Your task to perform on an android device: visit the assistant section in the google photos Image 0: 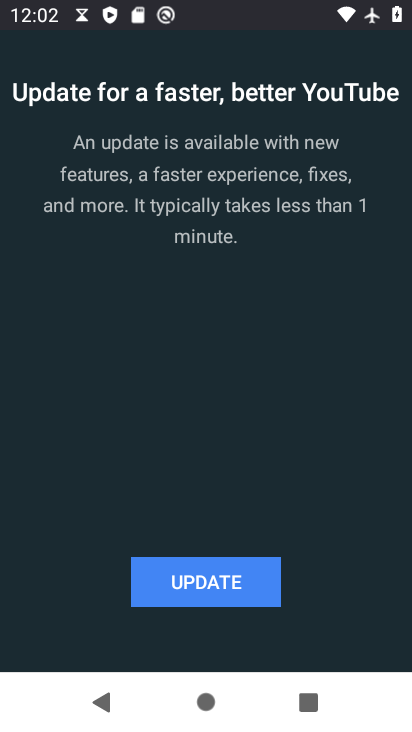
Step 0: press home button
Your task to perform on an android device: visit the assistant section in the google photos Image 1: 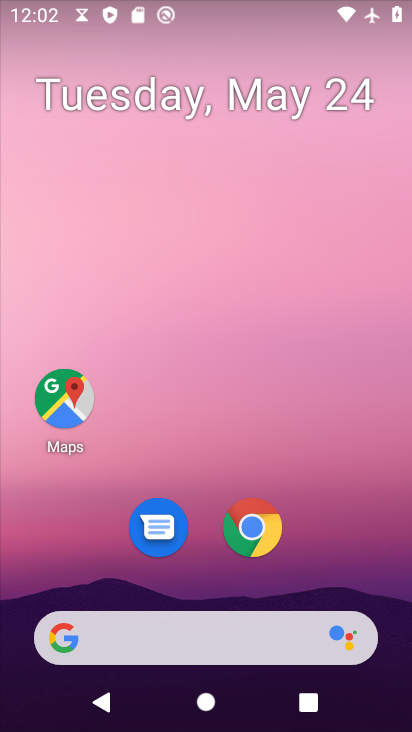
Step 1: drag from (207, 617) to (362, 75)
Your task to perform on an android device: visit the assistant section in the google photos Image 2: 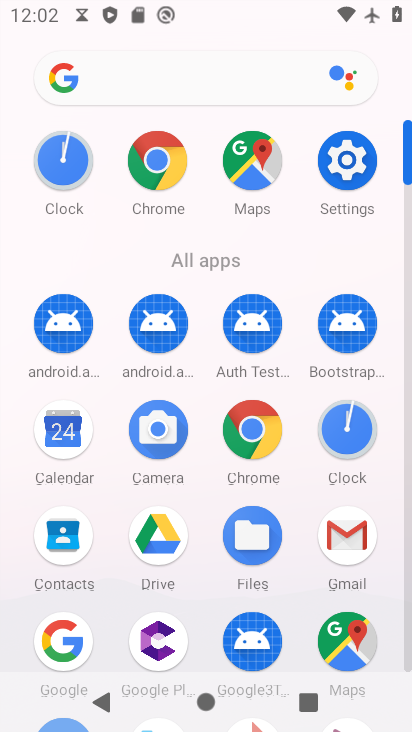
Step 2: drag from (209, 610) to (334, 197)
Your task to perform on an android device: visit the assistant section in the google photos Image 3: 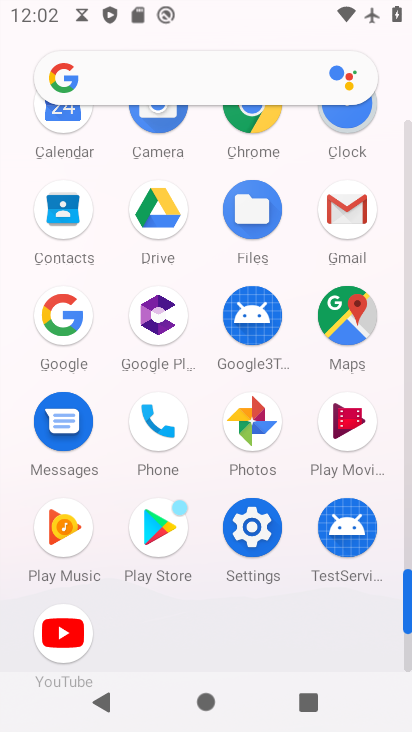
Step 3: click (260, 421)
Your task to perform on an android device: visit the assistant section in the google photos Image 4: 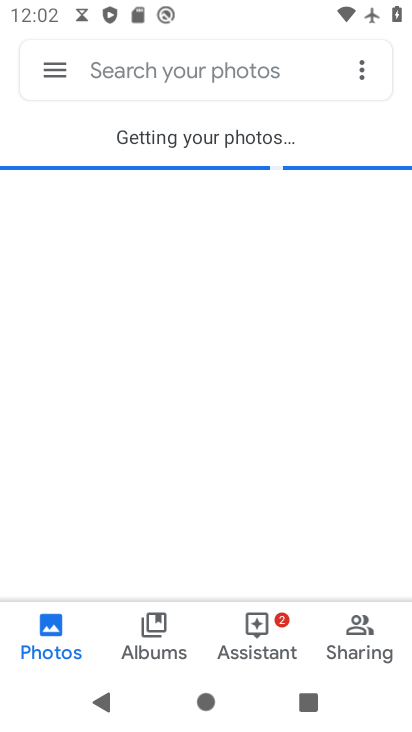
Step 4: click (252, 634)
Your task to perform on an android device: visit the assistant section in the google photos Image 5: 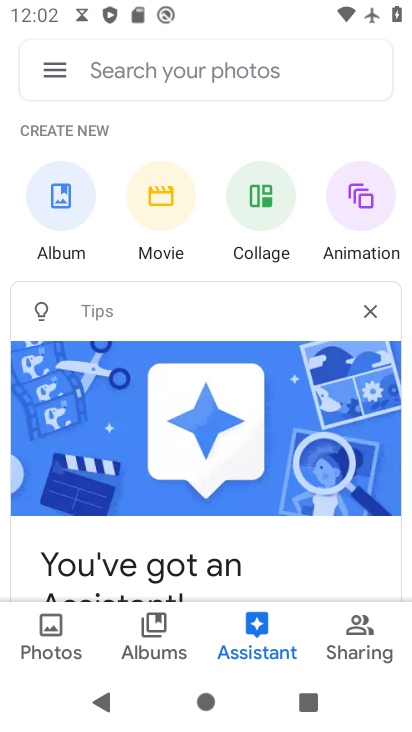
Step 5: task complete